Your task to perform on an android device: set an alarm Image 0: 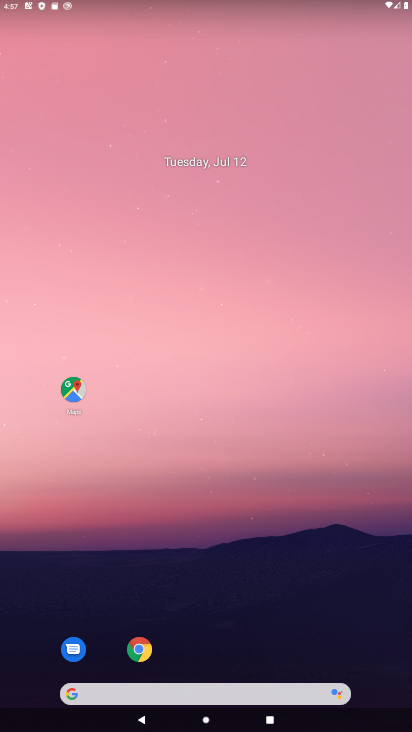
Step 0: drag from (236, 695) to (255, 124)
Your task to perform on an android device: set an alarm Image 1: 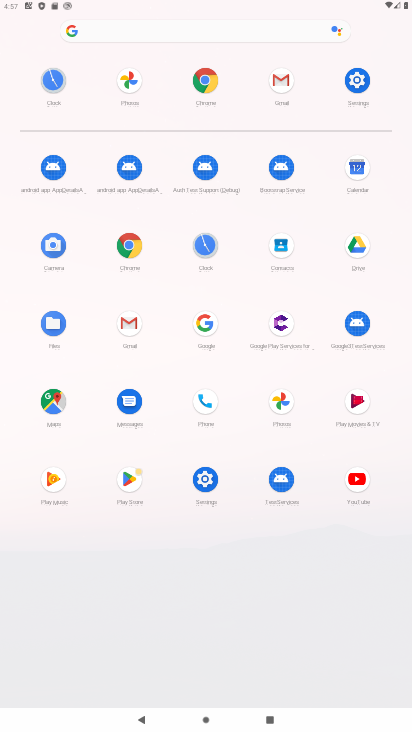
Step 1: click (205, 248)
Your task to perform on an android device: set an alarm Image 2: 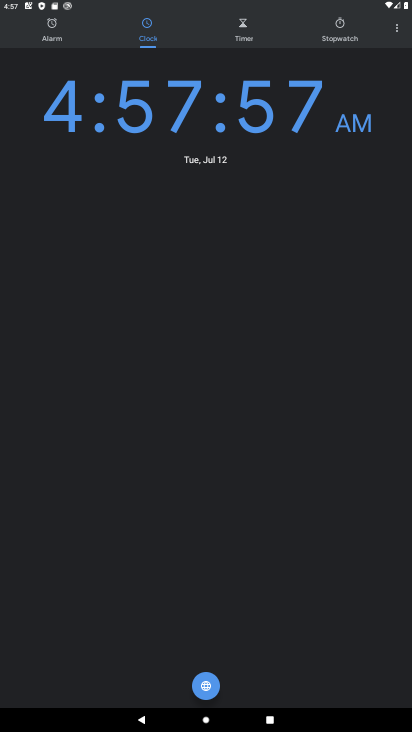
Step 2: click (52, 27)
Your task to perform on an android device: set an alarm Image 3: 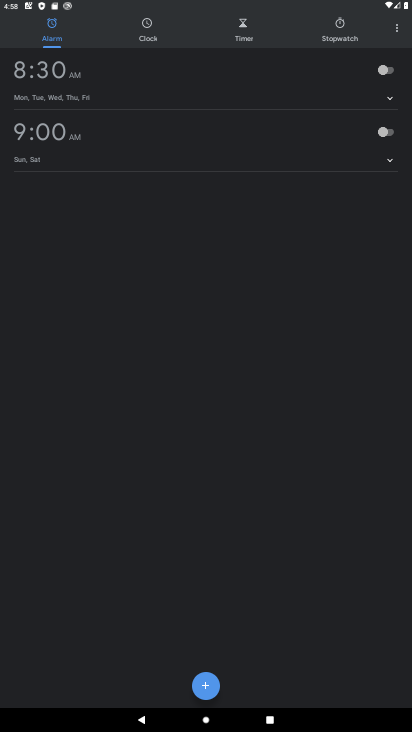
Step 3: click (208, 689)
Your task to perform on an android device: set an alarm Image 4: 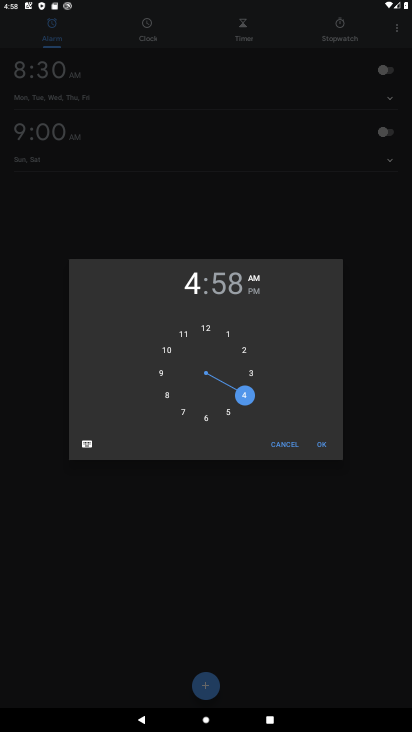
Step 4: click (183, 412)
Your task to perform on an android device: set an alarm Image 5: 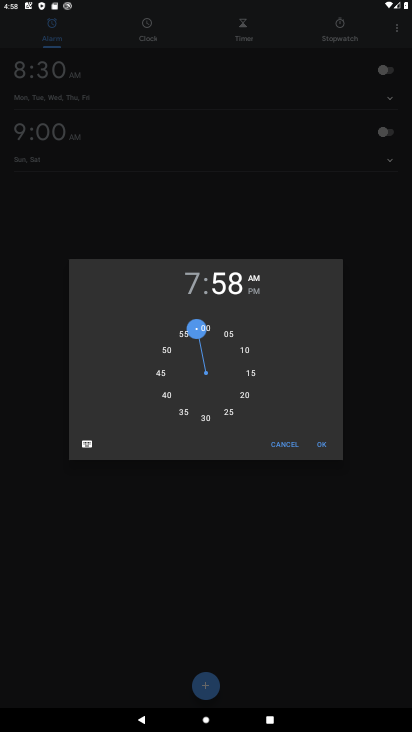
Step 5: click (183, 412)
Your task to perform on an android device: set an alarm Image 6: 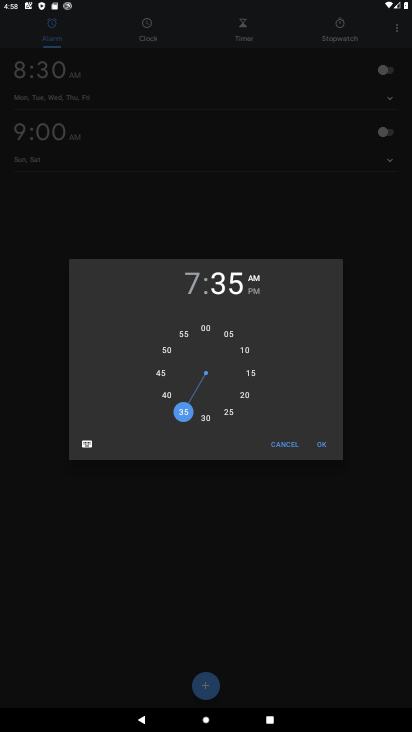
Step 6: click (262, 295)
Your task to perform on an android device: set an alarm Image 7: 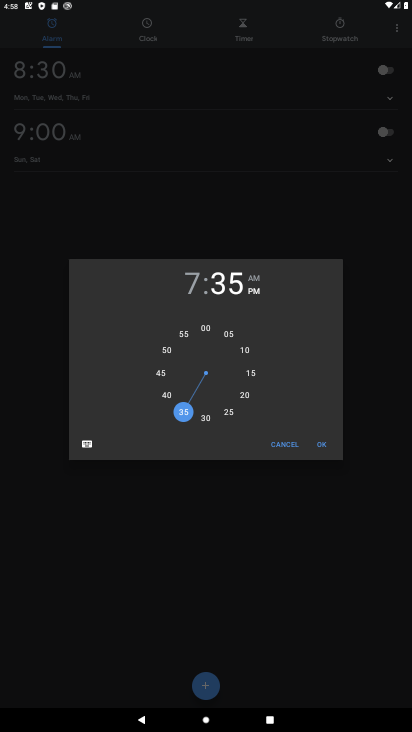
Step 7: click (87, 447)
Your task to perform on an android device: set an alarm Image 8: 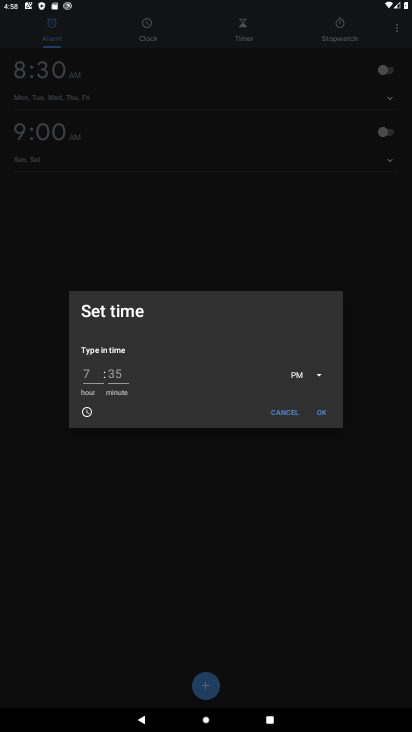
Step 8: click (325, 415)
Your task to perform on an android device: set an alarm Image 9: 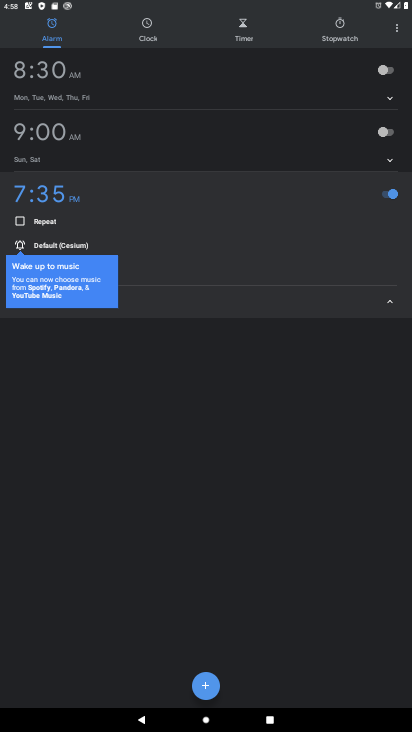
Step 9: click (393, 301)
Your task to perform on an android device: set an alarm Image 10: 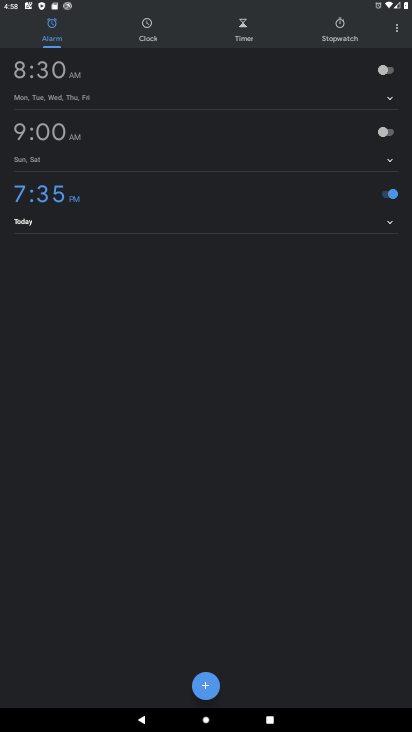
Step 10: task complete